Your task to perform on an android device: Go to calendar. Show me events next week Image 0: 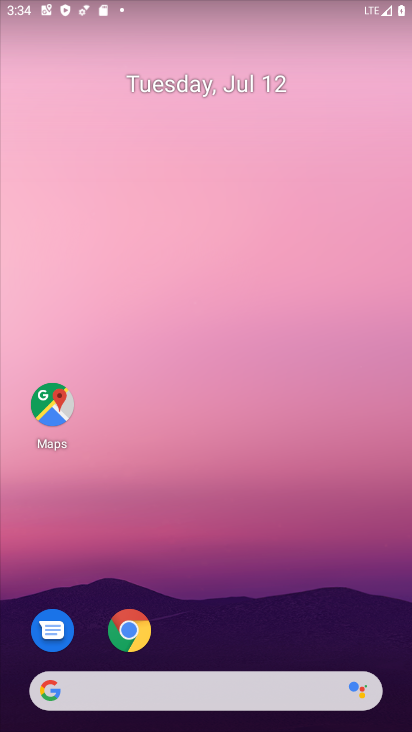
Step 0: drag from (247, 699) to (408, 408)
Your task to perform on an android device: Go to calendar. Show me events next week Image 1: 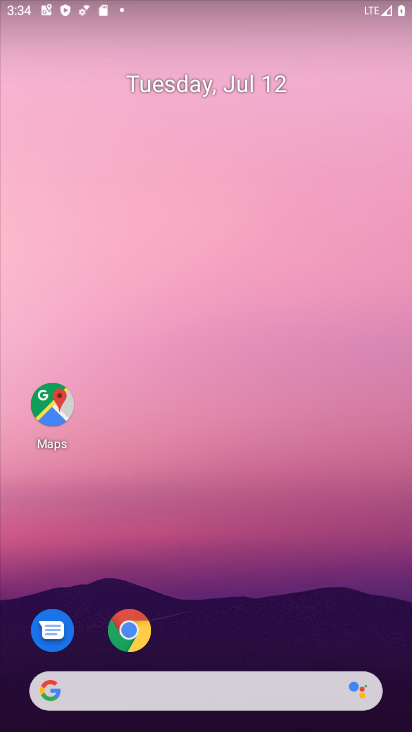
Step 1: drag from (278, 620) to (295, 34)
Your task to perform on an android device: Go to calendar. Show me events next week Image 2: 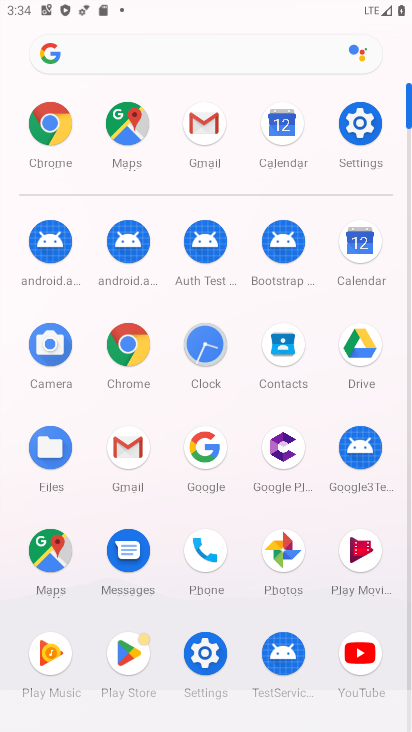
Step 2: click (370, 248)
Your task to perform on an android device: Go to calendar. Show me events next week Image 3: 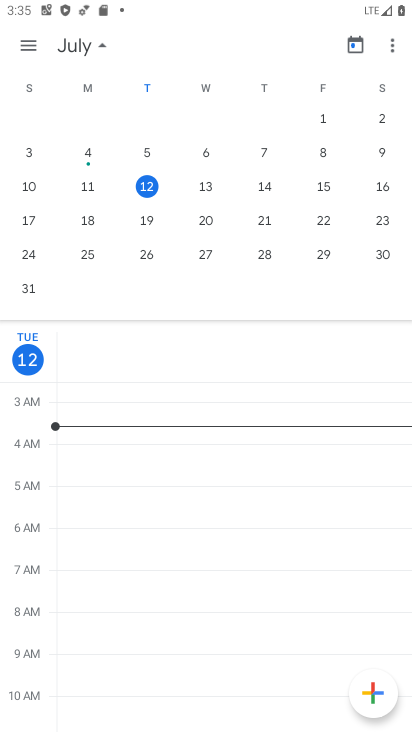
Step 3: click (205, 219)
Your task to perform on an android device: Go to calendar. Show me events next week Image 4: 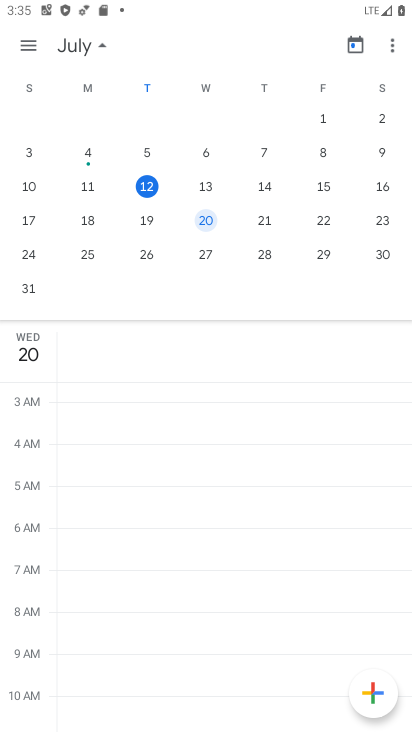
Step 4: click (34, 44)
Your task to perform on an android device: Go to calendar. Show me events next week Image 5: 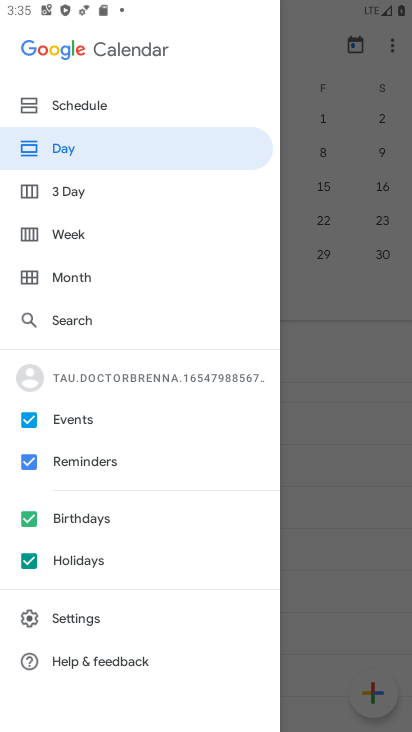
Step 5: click (80, 236)
Your task to perform on an android device: Go to calendar. Show me events next week Image 6: 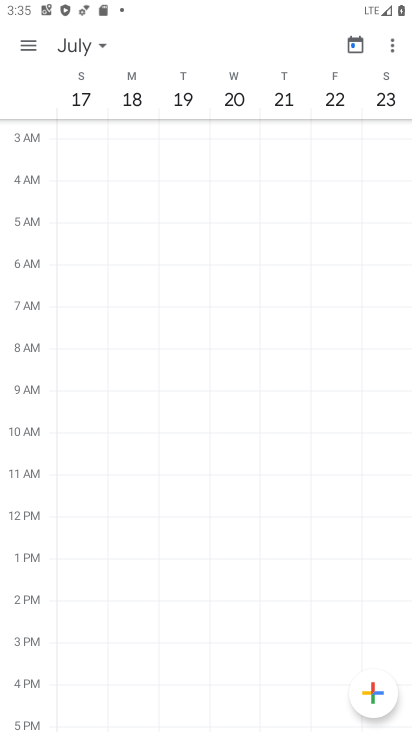
Step 6: task complete